Your task to perform on an android device: change the clock display to show seconds Image 0: 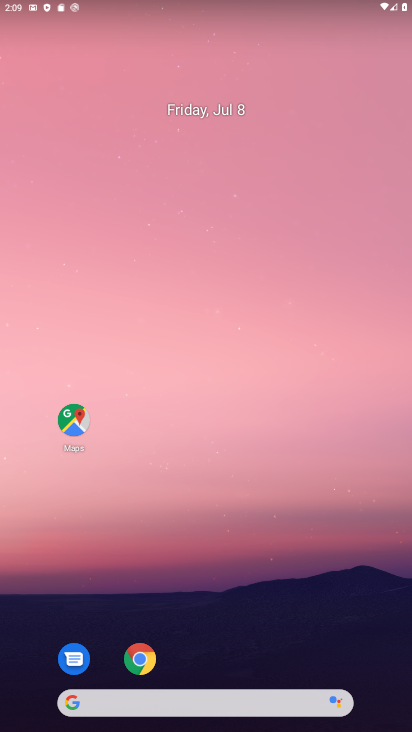
Step 0: drag from (384, 708) to (239, 53)
Your task to perform on an android device: change the clock display to show seconds Image 1: 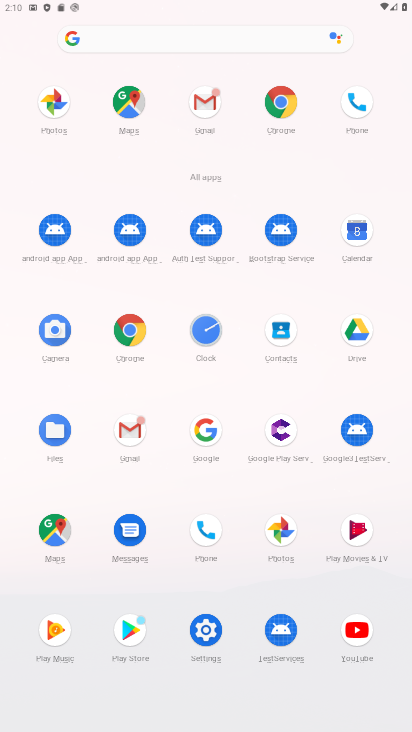
Step 1: click (208, 340)
Your task to perform on an android device: change the clock display to show seconds Image 2: 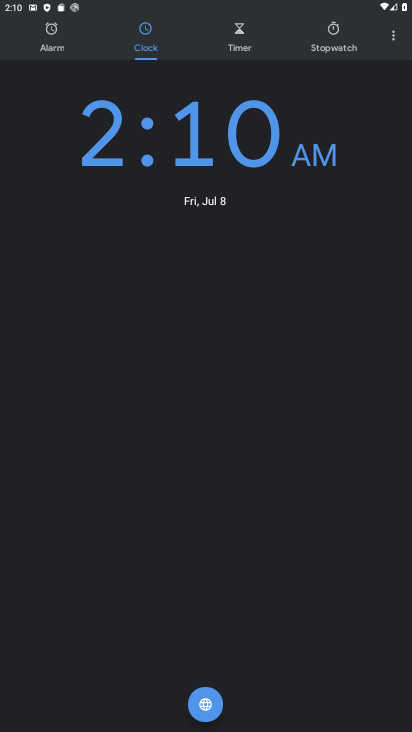
Step 2: click (397, 29)
Your task to perform on an android device: change the clock display to show seconds Image 3: 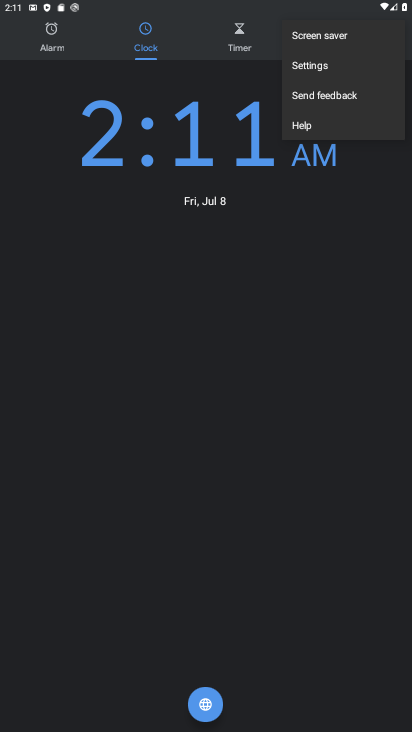
Step 3: click (314, 68)
Your task to perform on an android device: change the clock display to show seconds Image 4: 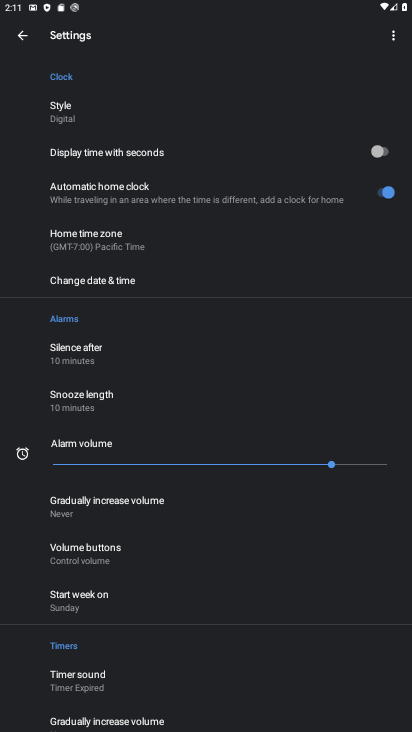
Step 4: click (49, 121)
Your task to perform on an android device: change the clock display to show seconds Image 5: 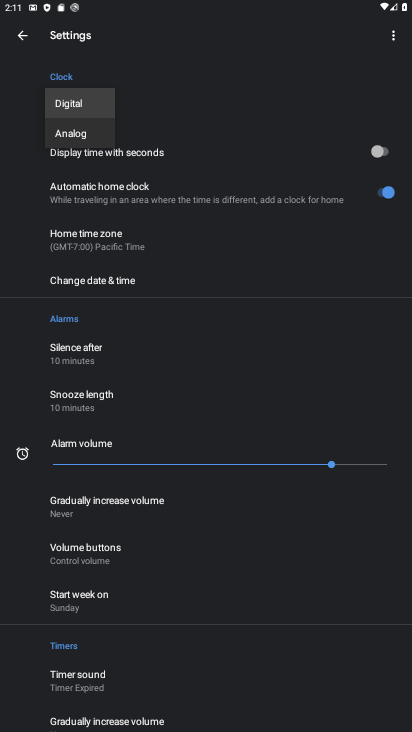
Step 5: click (56, 128)
Your task to perform on an android device: change the clock display to show seconds Image 6: 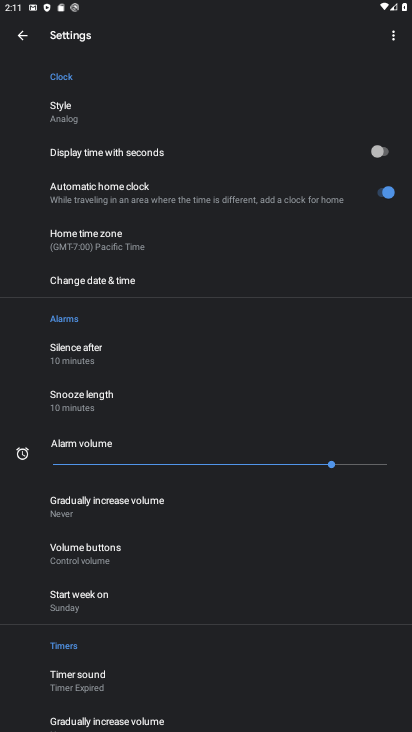
Step 6: click (79, 97)
Your task to perform on an android device: change the clock display to show seconds Image 7: 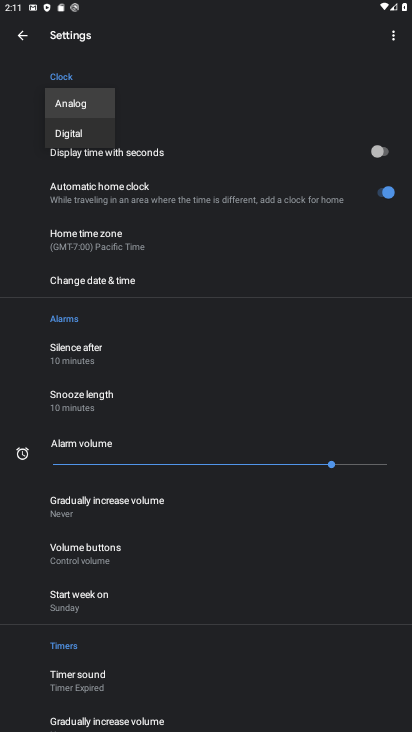
Step 7: click (87, 109)
Your task to perform on an android device: change the clock display to show seconds Image 8: 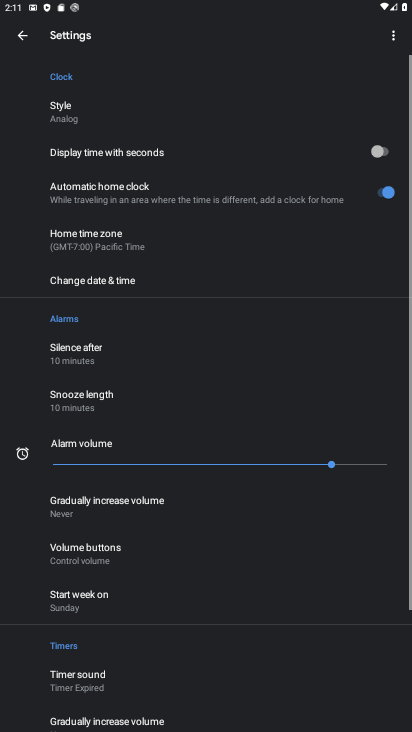
Step 8: click (127, 161)
Your task to perform on an android device: change the clock display to show seconds Image 9: 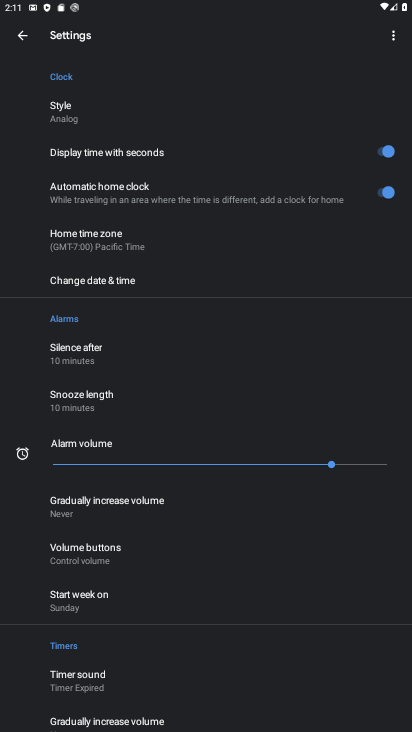
Step 9: task complete